Your task to perform on an android device: Search for seafood restaurants on Google Maps Image 0: 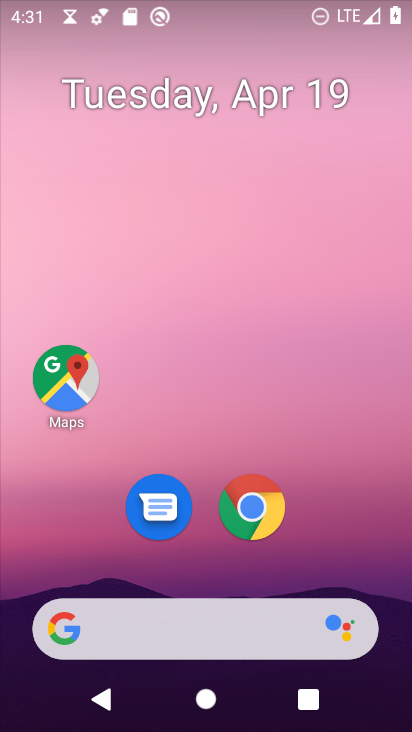
Step 0: drag from (320, 557) to (338, 71)
Your task to perform on an android device: Search for seafood restaurants on Google Maps Image 1: 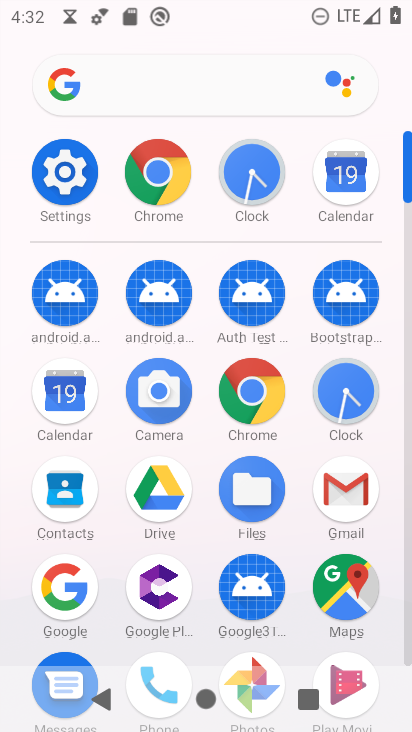
Step 1: click (346, 580)
Your task to perform on an android device: Search for seafood restaurants on Google Maps Image 2: 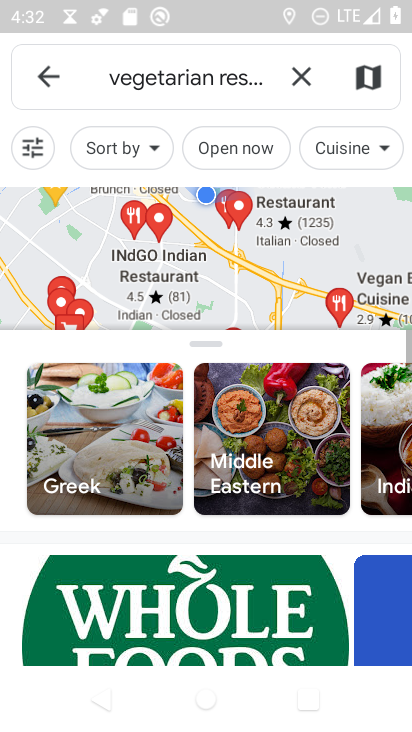
Step 2: click (115, 74)
Your task to perform on an android device: Search for seafood restaurants on Google Maps Image 3: 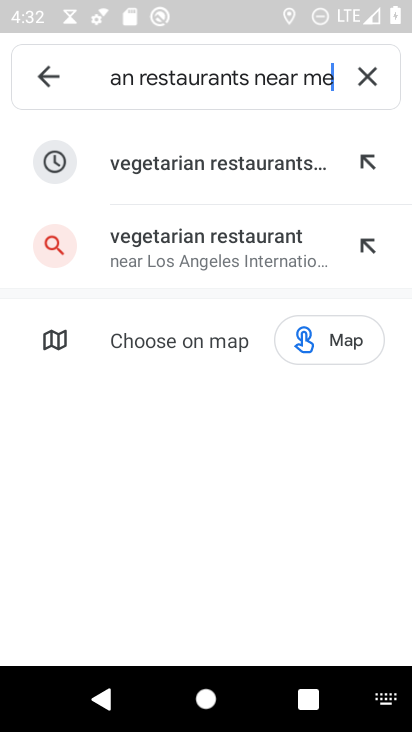
Step 3: click (370, 74)
Your task to perform on an android device: Search for seafood restaurants on Google Maps Image 4: 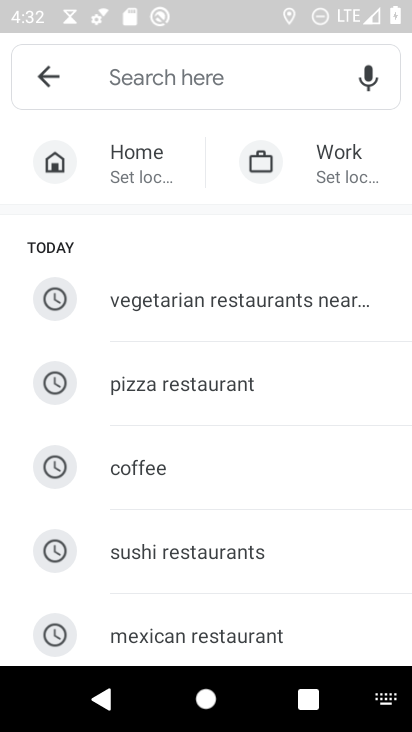
Step 4: type "seafood restaurants"
Your task to perform on an android device: Search for seafood restaurants on Google Maps Image 5: 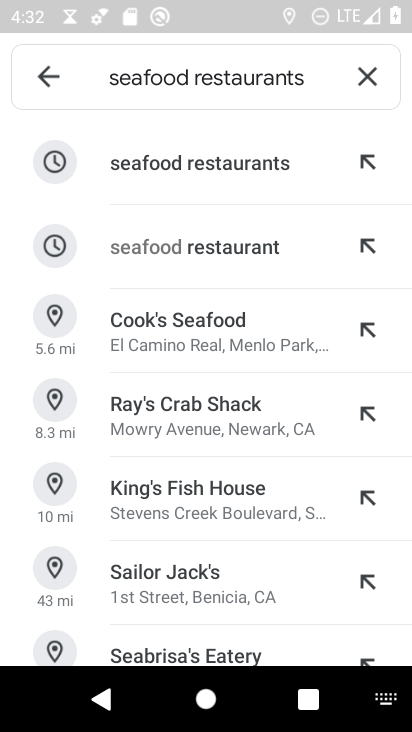
Step 5: click (214, 159)
Your task to perform on an android device: Search for seafood restaurants on Google Maps Image 6: 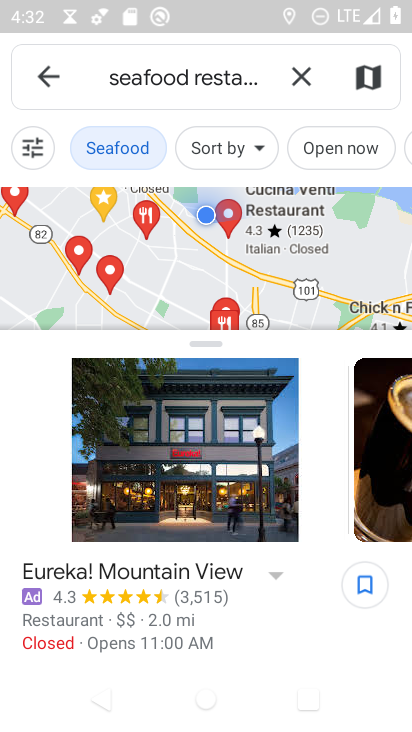
Step 6: task complete